Your task to perform on an android device: Go to display settings Image 0: 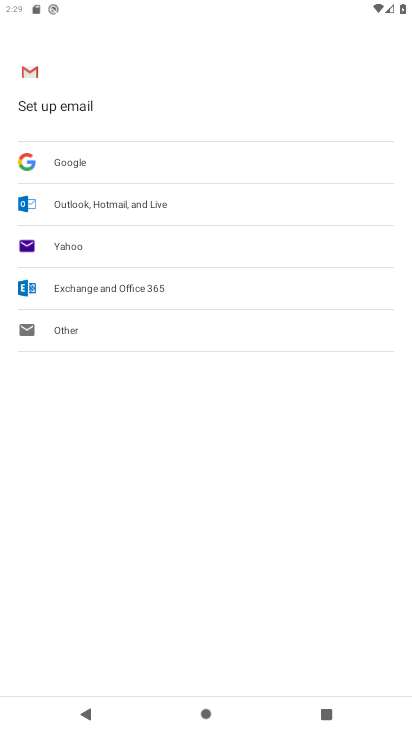
Step 0: press home button
Your task to perform on an android device: Go to display settings Image 1: 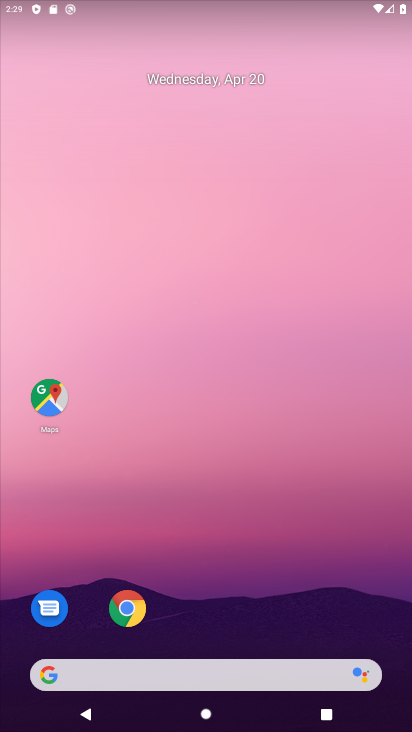
Step 1: drag from (303, 434) to (313, 96)
Your task to perform on an android device: Go to display settings Image 2: 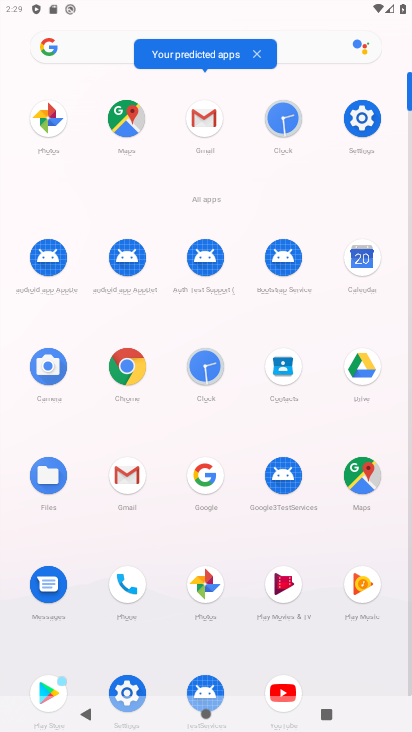
Step 2: click (365, 112)
Your task to perform on an android device: Go to display settings Image 3: 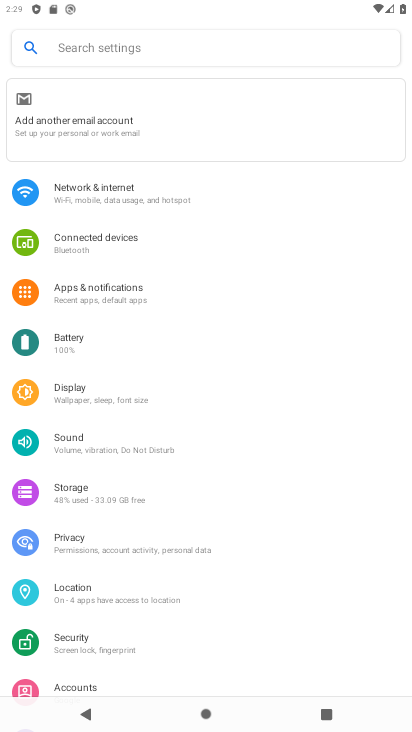
Step 3: click (79, 394)
Your task to perform on an android device: Go to display settings Image 4: 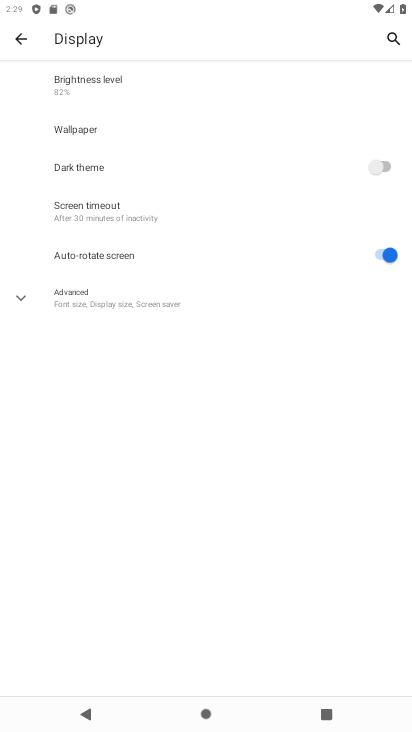
Step 4: task complete